Your task to perform on an android device: move an email to a new category in the gmail app Image 0: 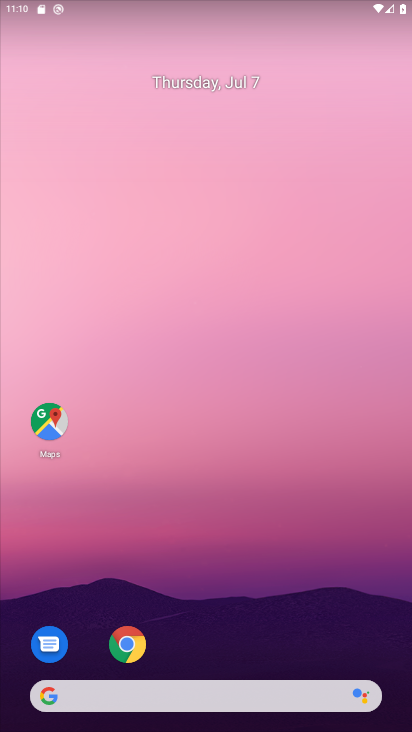
Step 0: drag from (211, 730) to (172, 156)
Your task to perform on an android device: move an email to a new category in the gmail app Image 1: 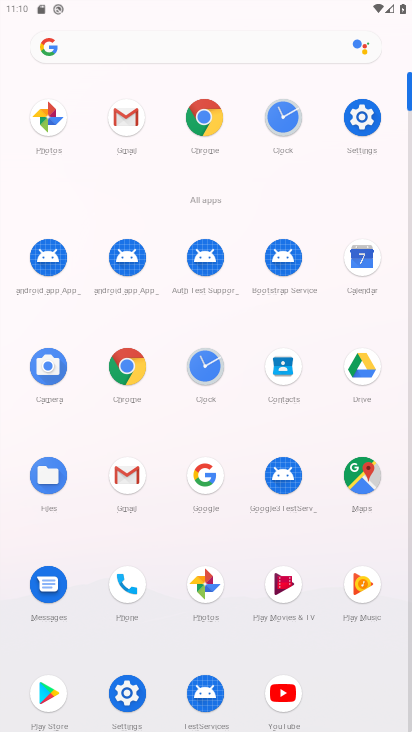
Step 1: click (127, 467)
Your task to perform on an android device: move an email to a new category in the gmail app Image 2: 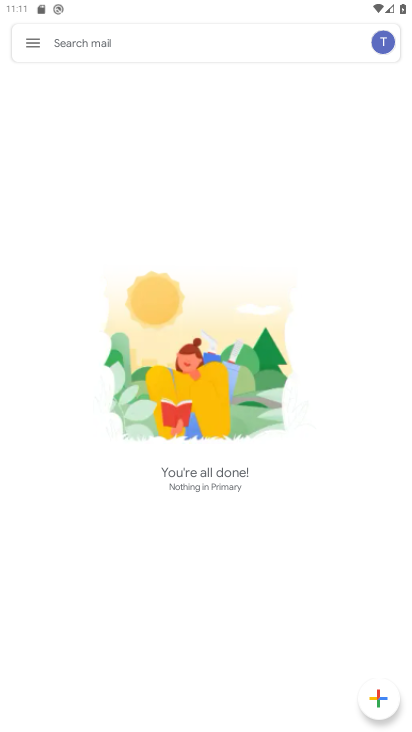
Step 2: task complete